Your task to perform on an android device: Empty the shopping cart on newegg. Search for "razer blade" on newegg, select the first entry, add it to the cart, then select checkout. Image 0: 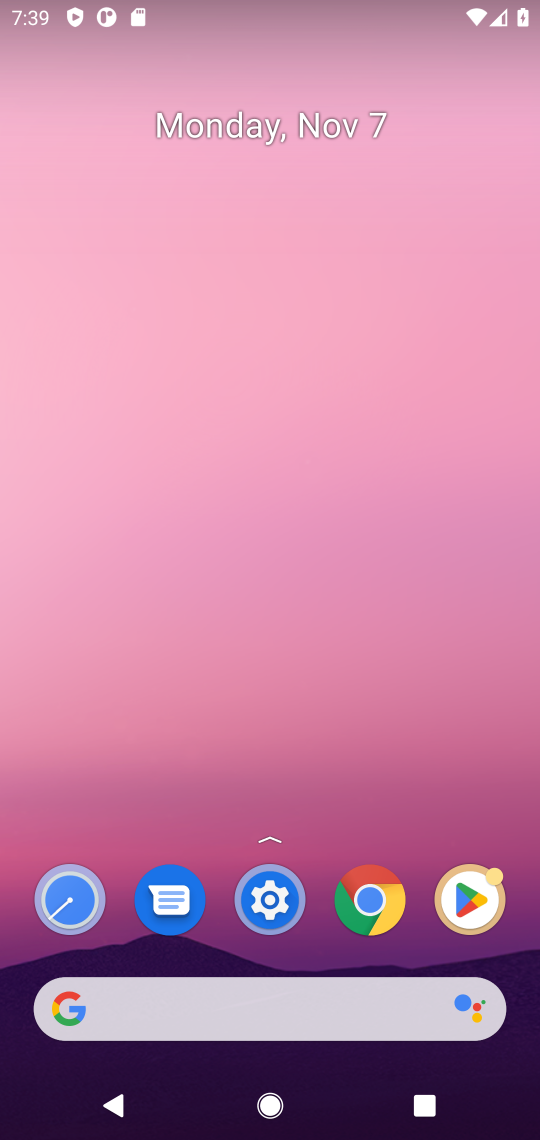
Step 0: click (310, 994)
Your task to perform on an android device: Empty the shopping cart on newegg. Search for "razer blade" on newegg, select the first entry, add it to the cart, then select checkout. Image 1: 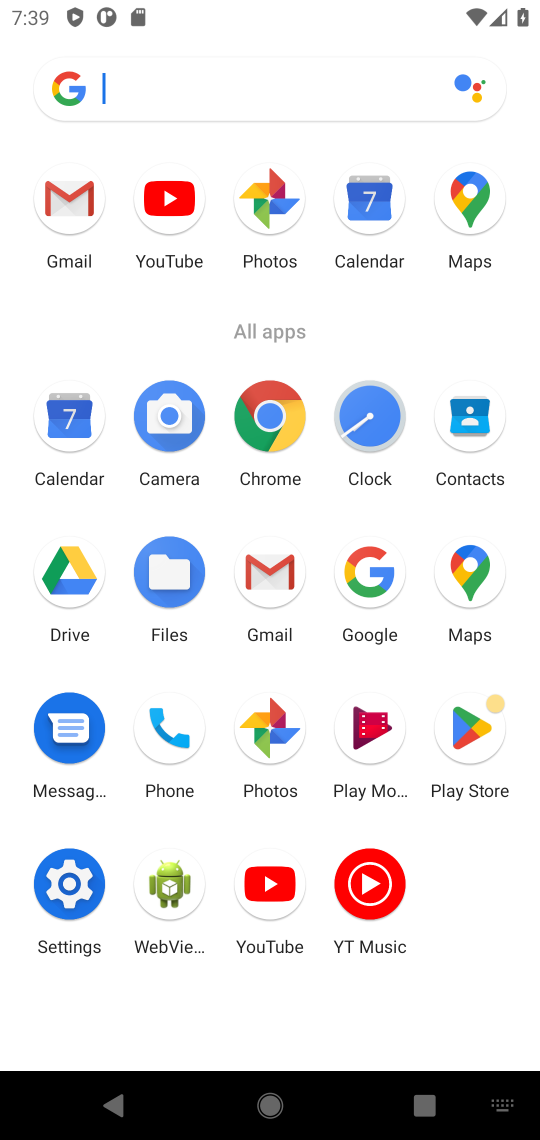
Step 1: press home button
Your task to perform on an android device: Empty the shopping cart on newegg. Search for "razer blade" on newegg, select the first entry, add it to the cart, then select checkout. Image 2: 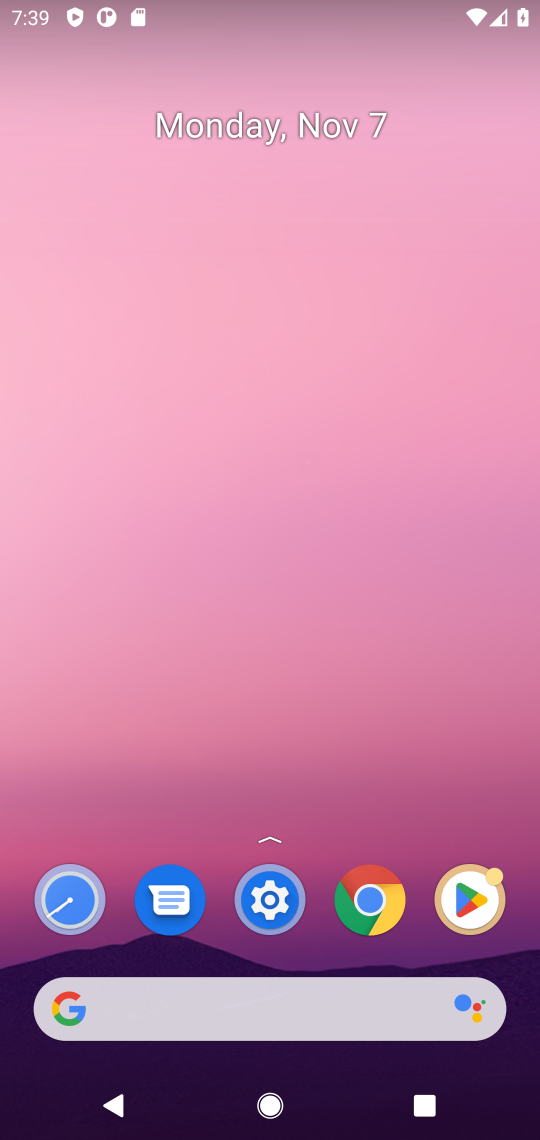
Step 2: click (289, 1007)
Your task to perform on an android device: Empty the shopping cart on newegg. Search for "razer blade" on newegg, select the first entry, add it to the cart, then select checkout. Image 3: 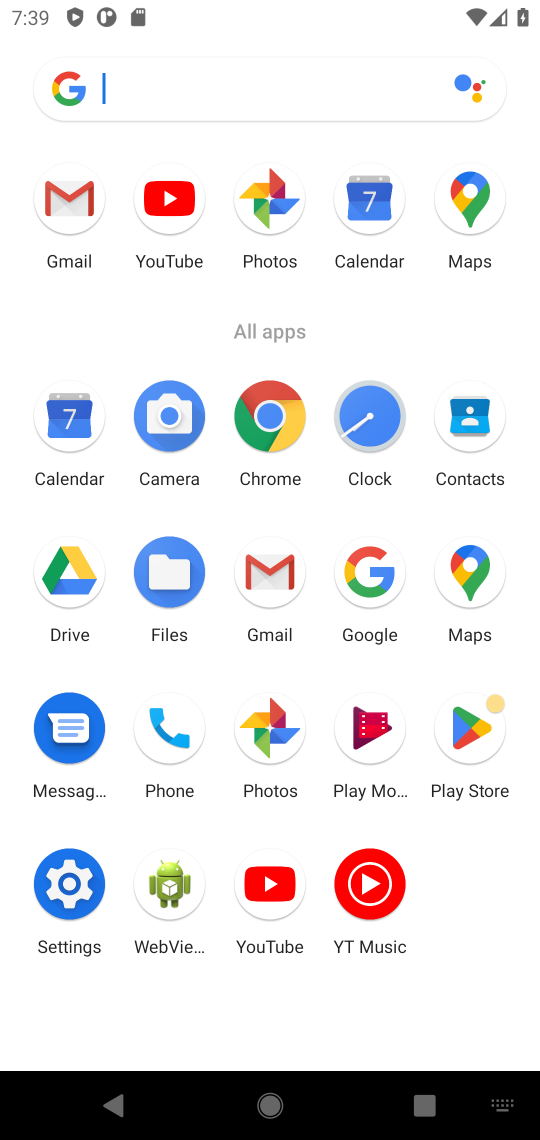
Step 3: type "newegg"
Your task to perform on an android device: Empty the shopping cart on newegg. Search for "razer blade" on newegg, select the first entry, add it to the cart, then select checkout. Image 4: 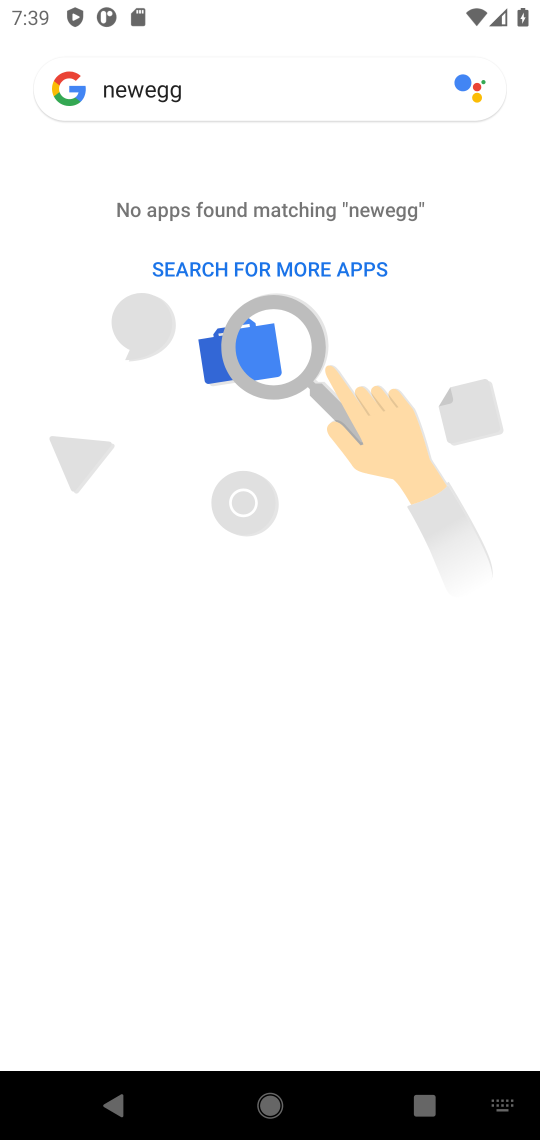
Step 4: task complete